Your task to perform on an android device: Open Google Maps and go to "Timeline" Image 0: 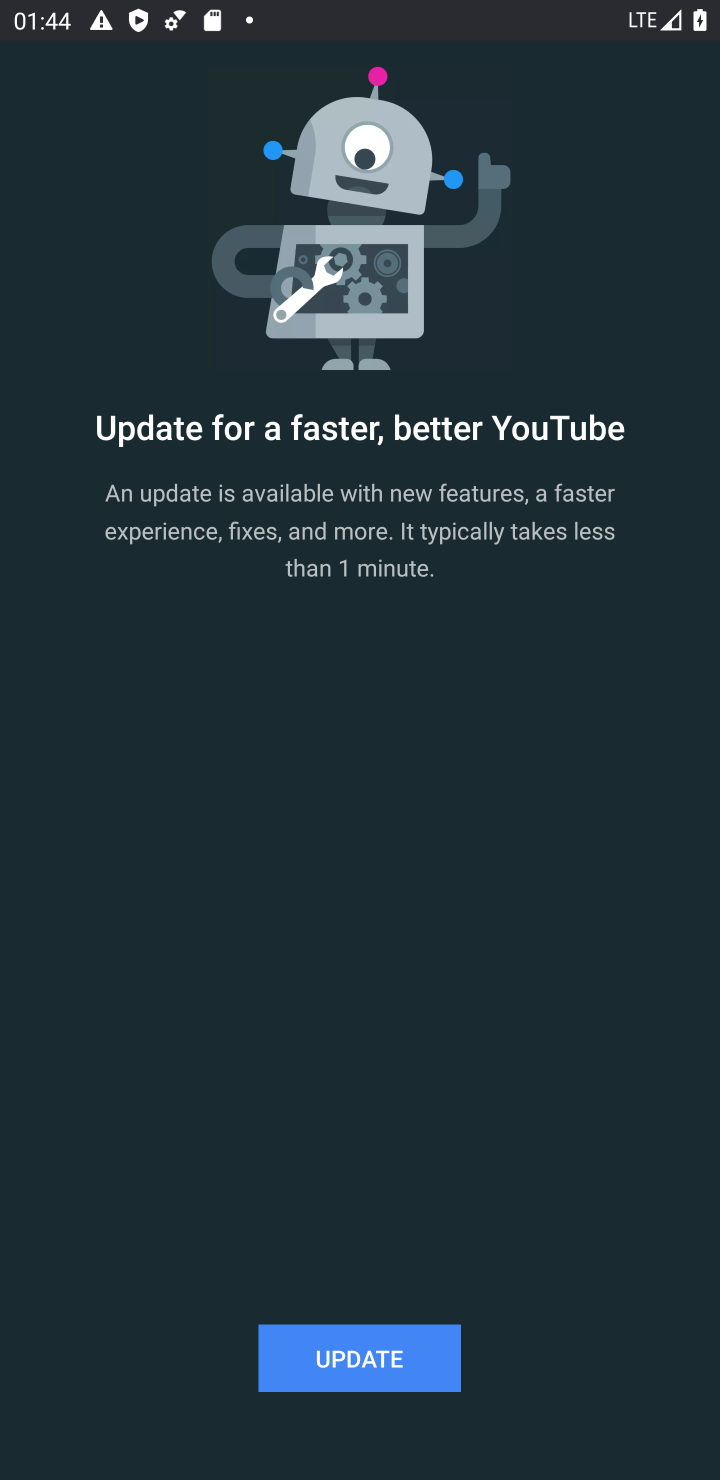
Step 0: press home button
Your task to perform on an android device: Open Google Maps and go to "Timeline" Image 1: 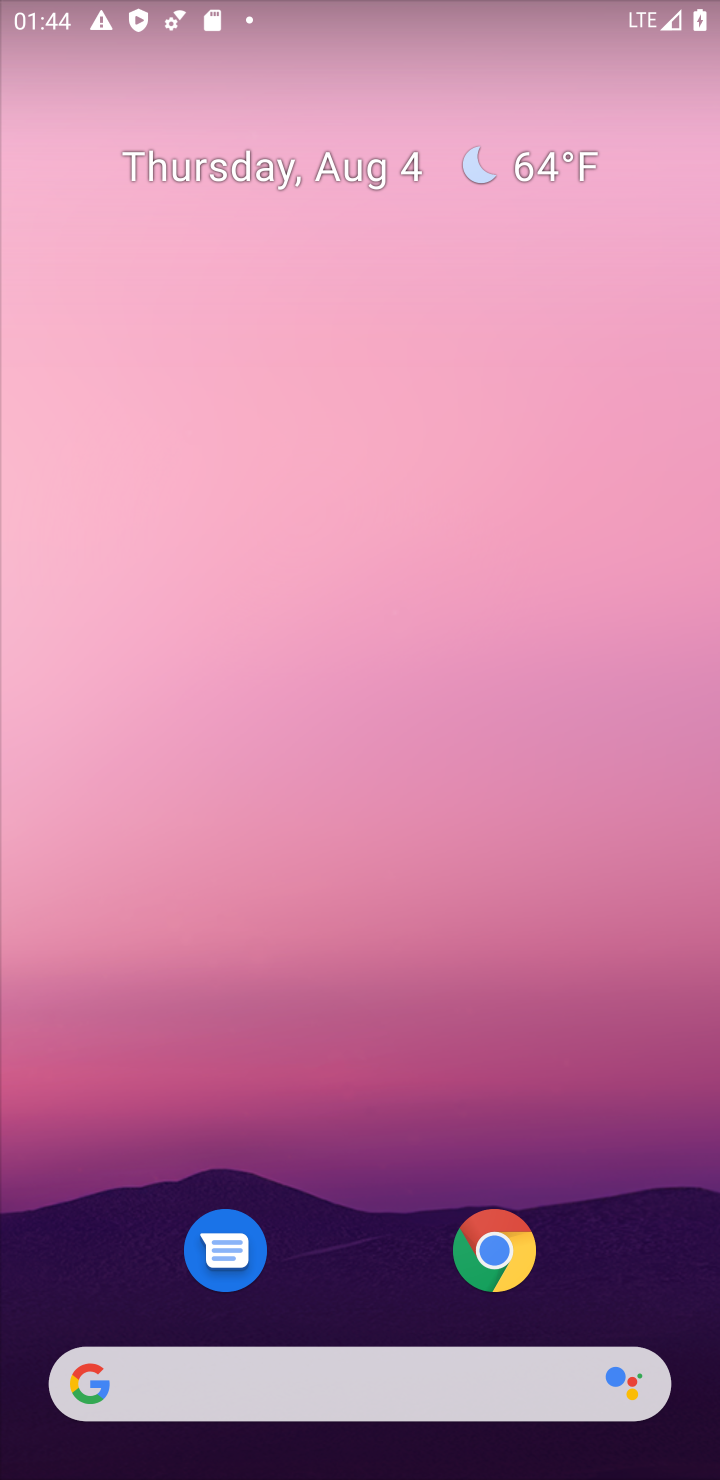
Step 1: drag from (343, 1185) to (218, 43)
Your task to perform on an android device: Open Google Maps and go to "Timeline" Image 2: 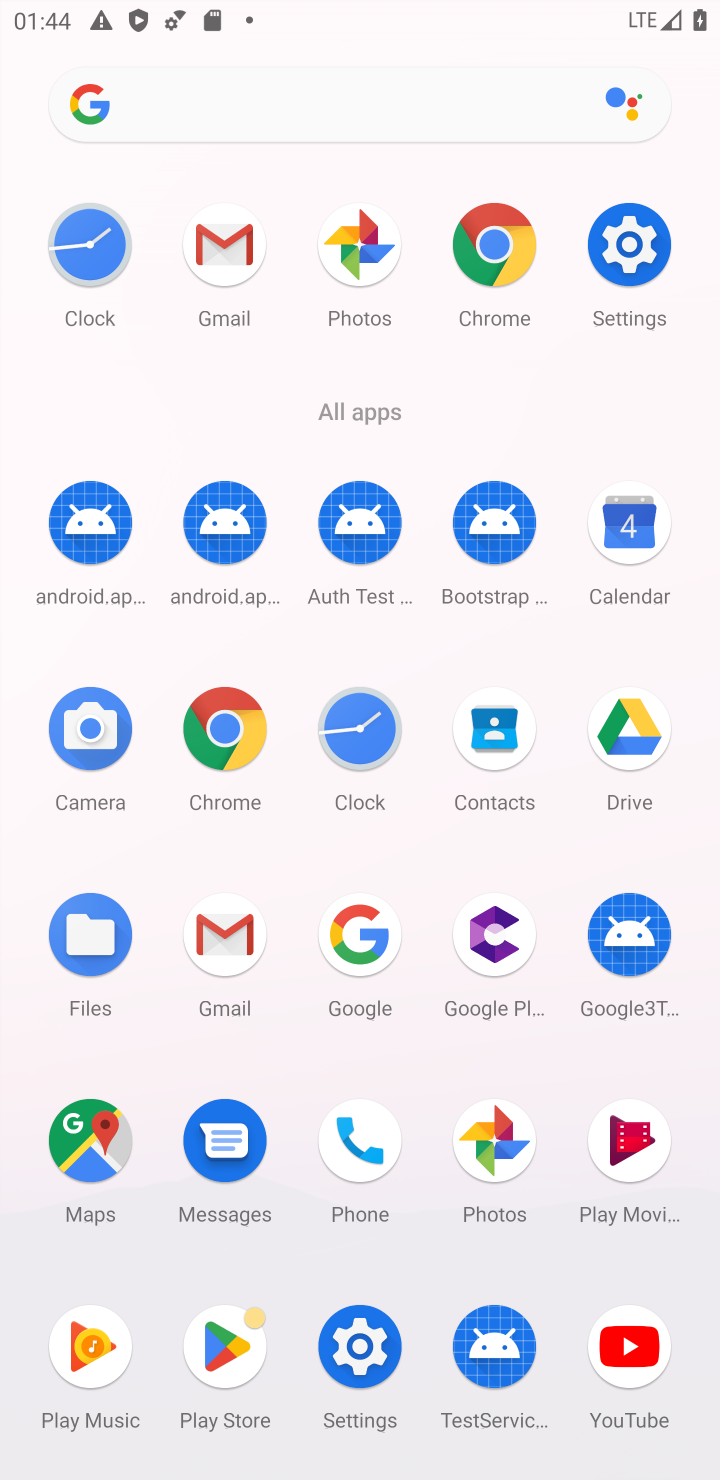
Step 2: click (95, 1146)
Your task to perform on an android device: Open Google Maps and go to "Timeline" Image 3: 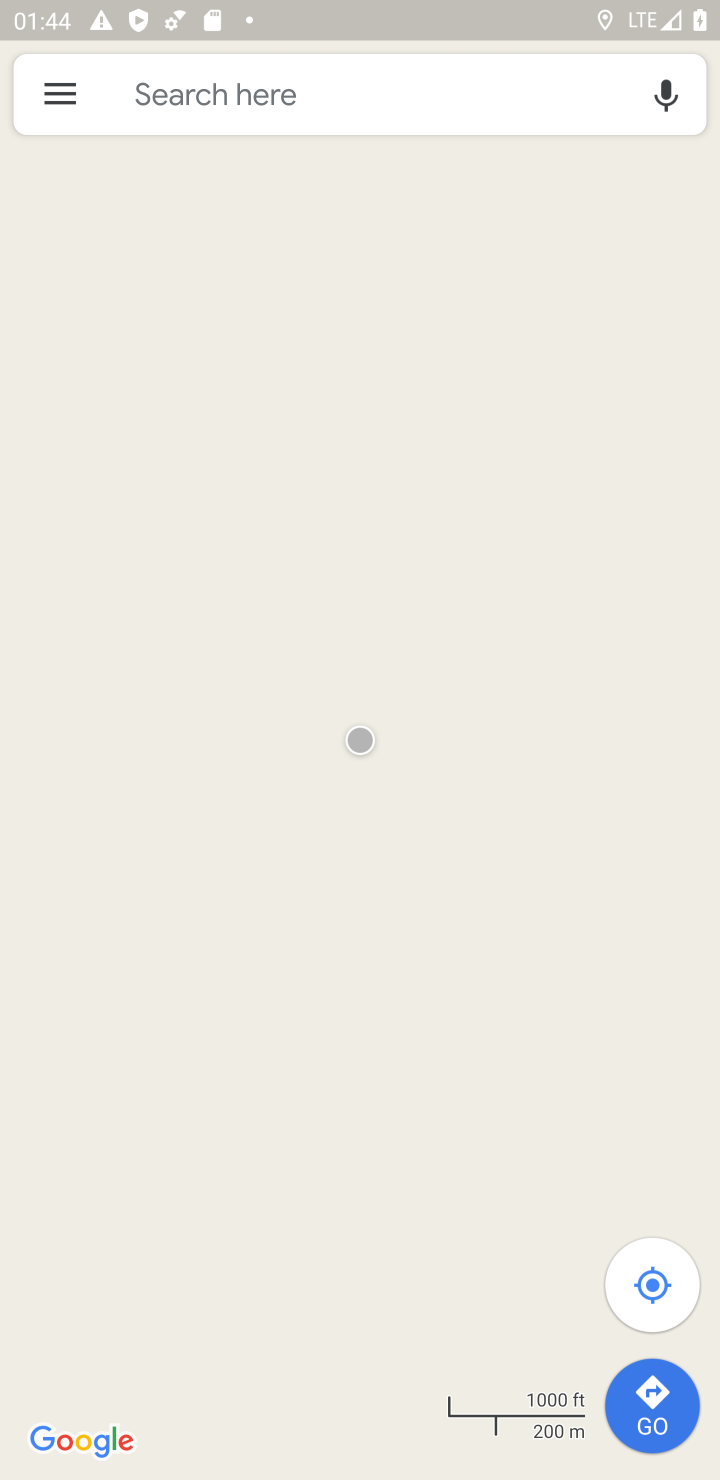
Step 3: click (64, 98)
Your task to perform on an android device: Open Google Maps and go to "Timeline" Image 4: 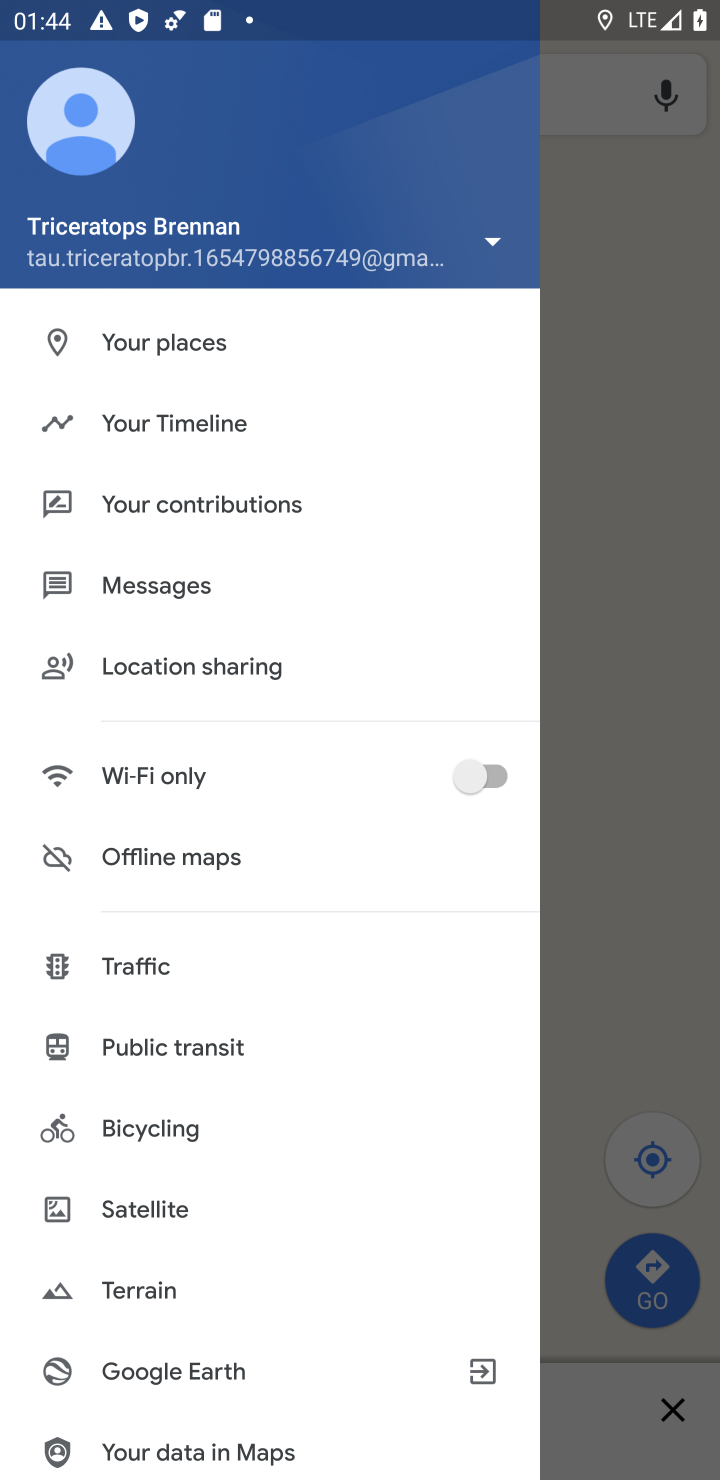
Step 4: click (173, 437)
Your task to perform on an android device: Open Google Maps and go to "Timeline" Image 5: 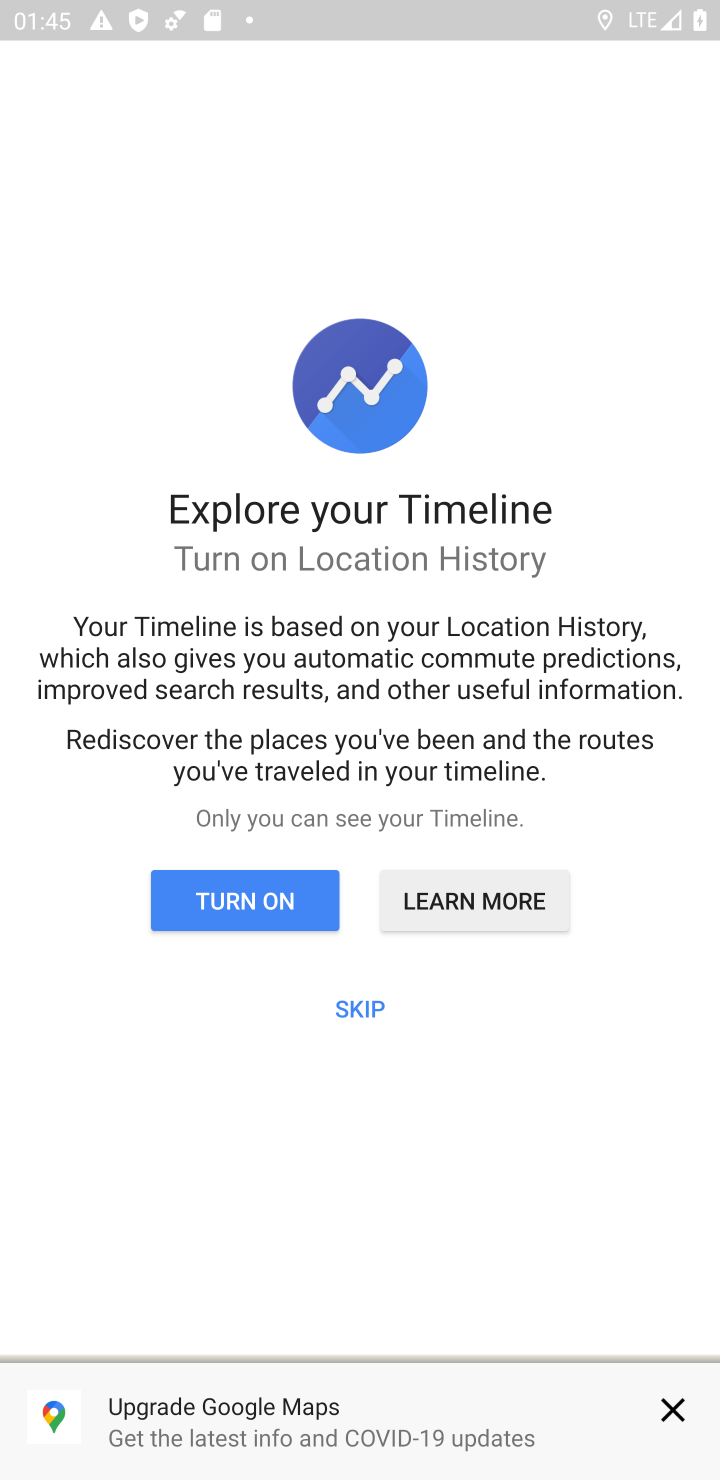
Step 5: click (355, 1006)
Your task to perform on an android device: Open Google Maps and go to "Timeline" Image 6: 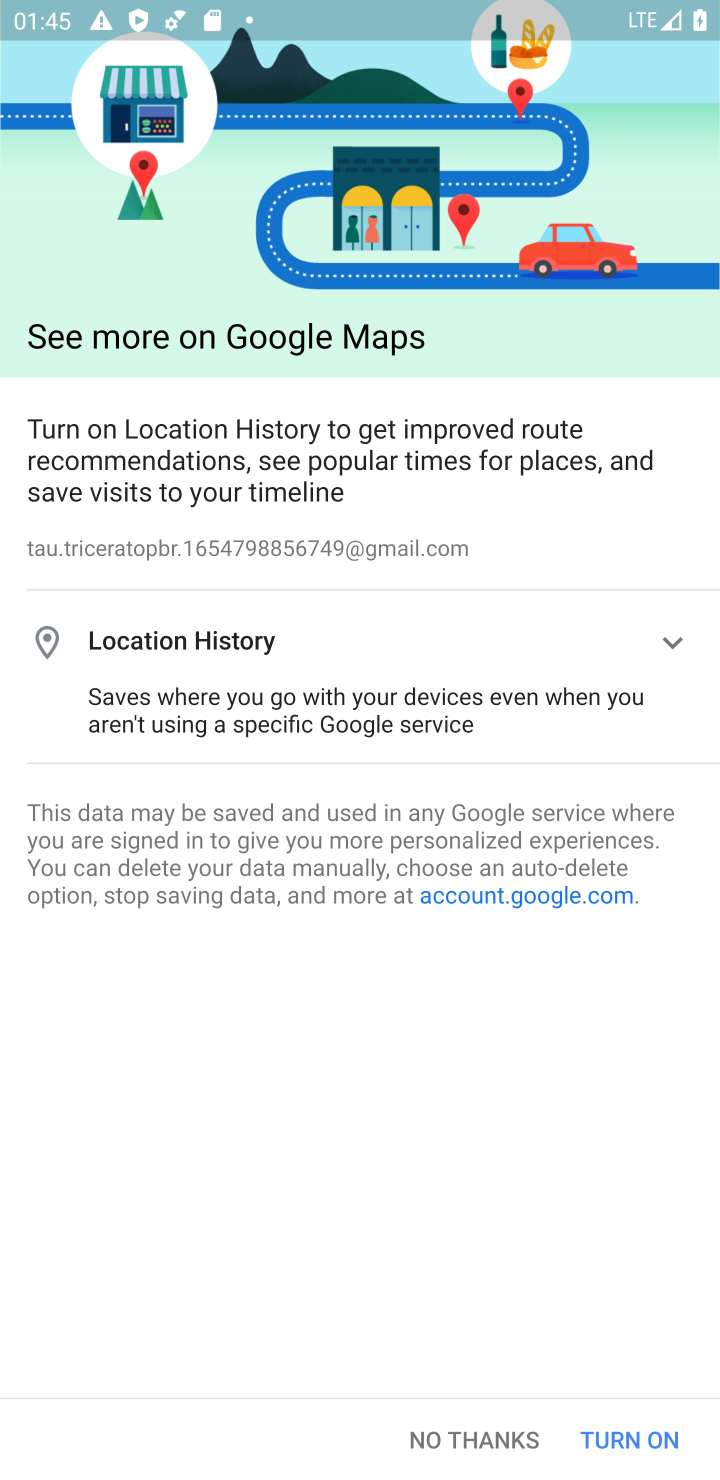
Step 6: click (484, 1444)
Your task to perform on an android device: Open Google Maps and go to "Timeline" Image 7: 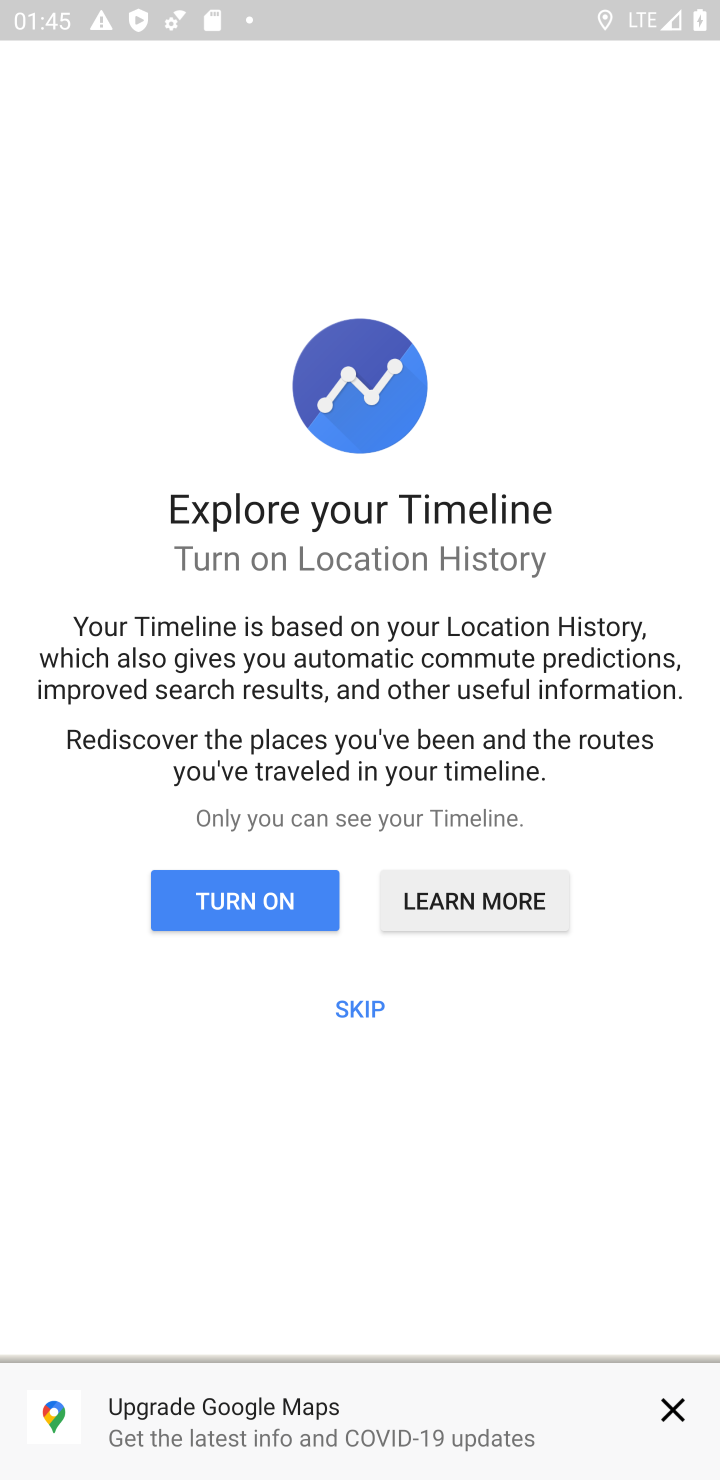
Step 7: click (359, 1010)
Your task to perform on an android device: Open Google Maps and go to "Timeline" Image 8: 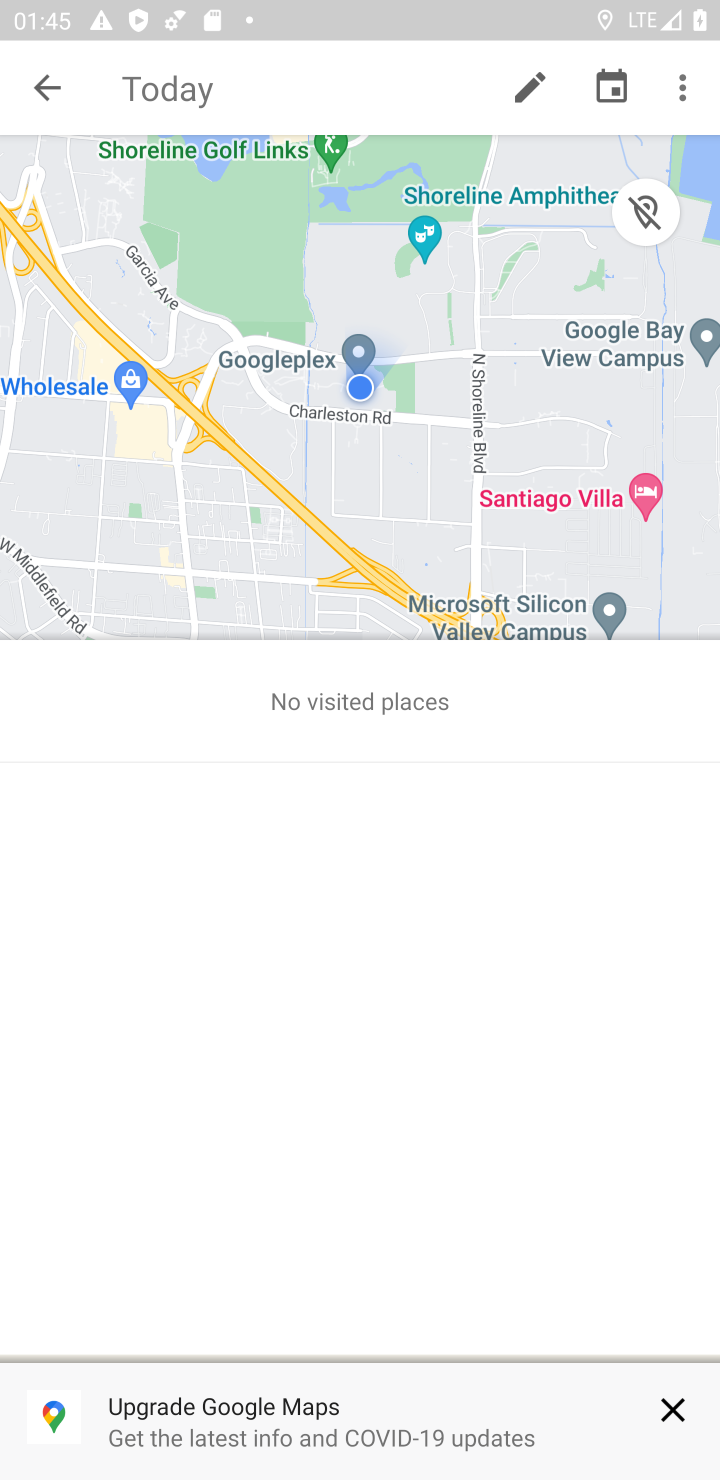
Step 8: task complete